Your task to perform on an android device: Open display settings Image 0: 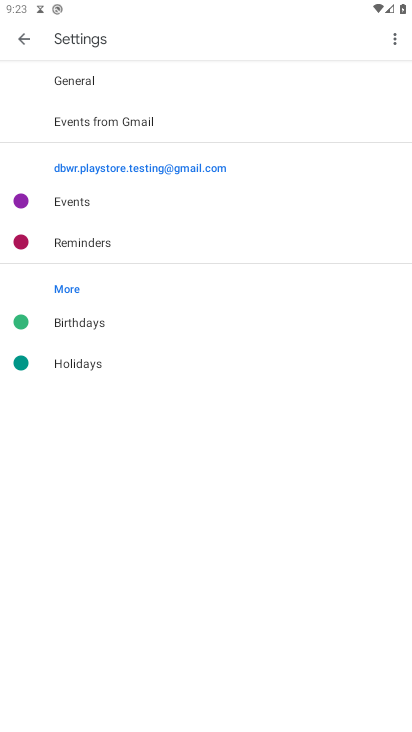
Step 0: press home button
Your task to perform on an android device: Open display settings Image 1: 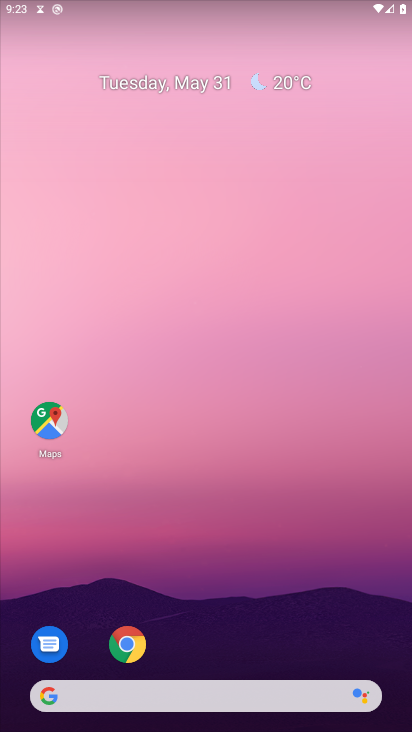
Step 1: drag from (231, 653) to (225, 44)
Your task to perform on an android device: Open display settings Image 2: 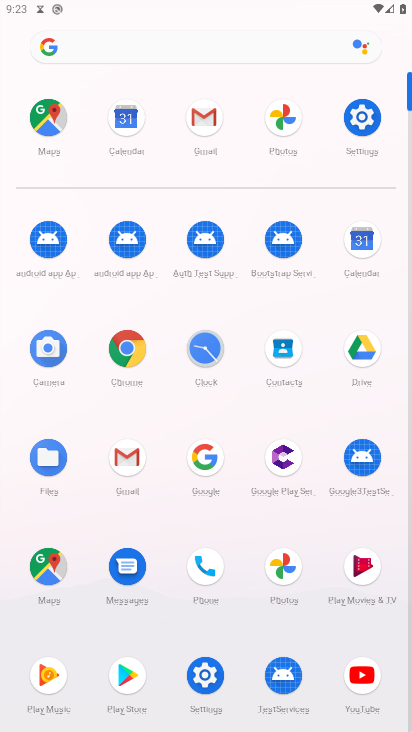
Step 2: click (364, 112)
Your task to perform on an android device: Open display settings Image 3: 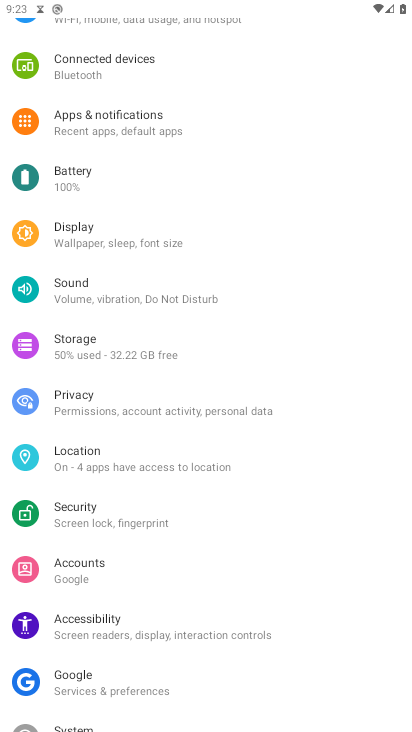
Step 3: click (118, 226)
Your task to perform on an android device: Open display settings Image 4: 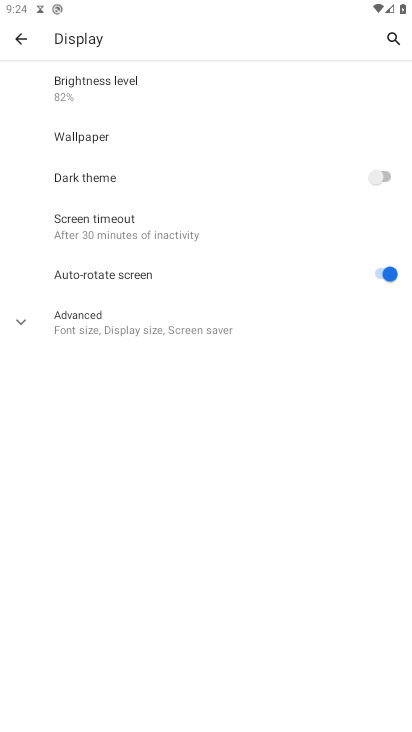
Step 4: click (22, 314)
Your task to perform on an android device: Open display settings Image 5: 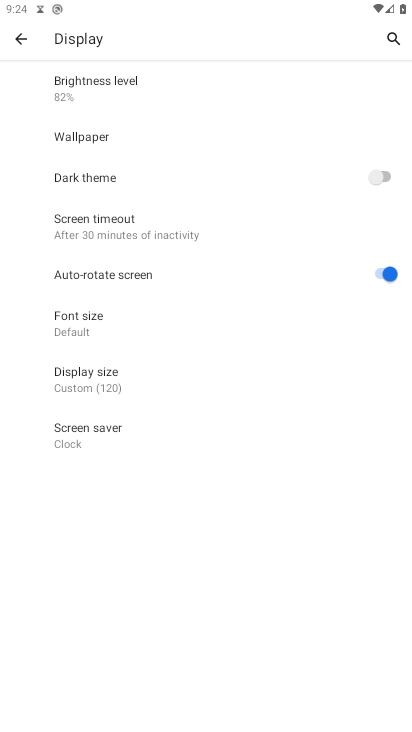
Step 5: task complete